Your task to perform on an android device: find which apps use the phone's location Image 0: 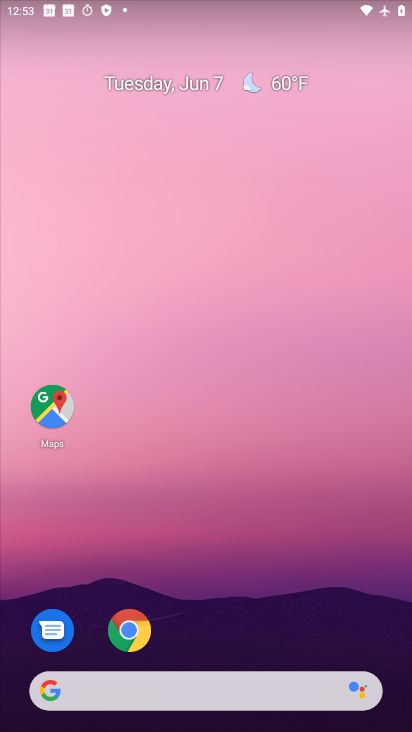
Step 0: drag from (350, 622) to (275, 79)
Your task to perform on an android device: find which apps use the phone's location Image 1: 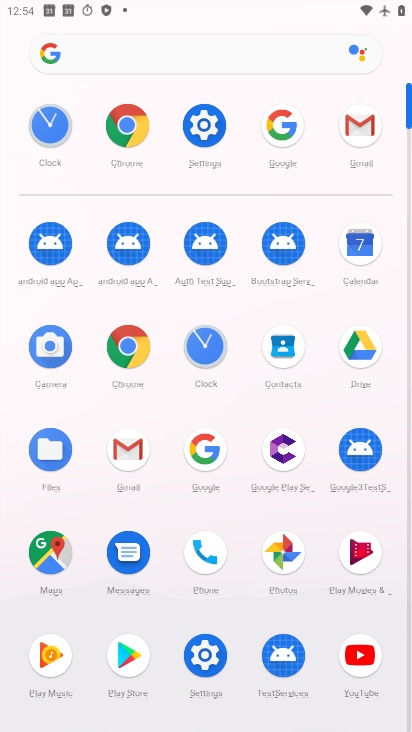
Step 1: click (200, 656)
Your task to perform on an android device: find which apps use the phone's location Image 2: 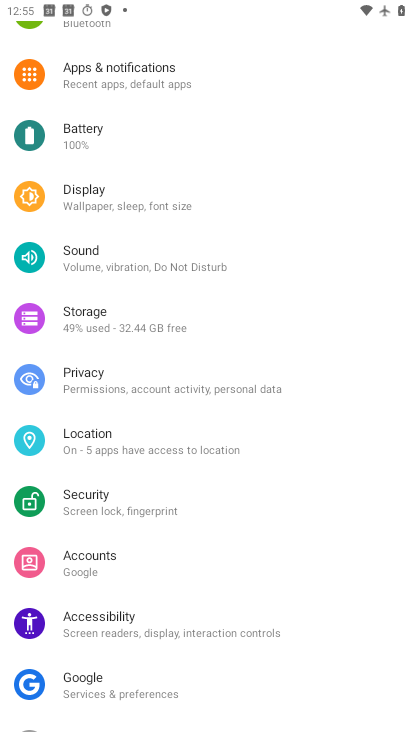
Step 2: click (148, 435)
Your task to perform on an android device: find which apps use the phone's location Image 3: 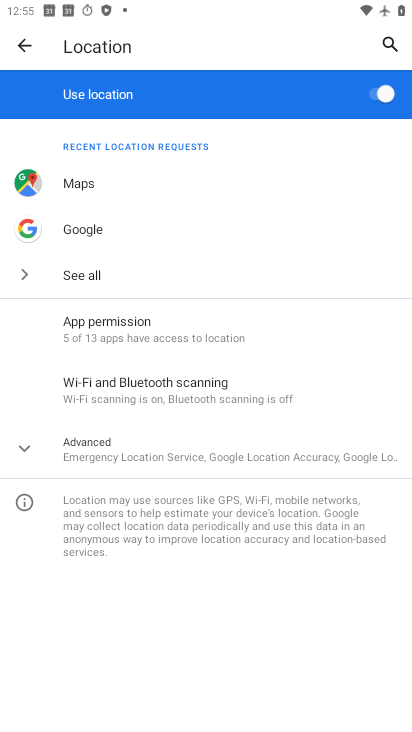
Step 3: click (167, 312)
Your task to perform on an android device: find which apps use the phone's location Image 4: 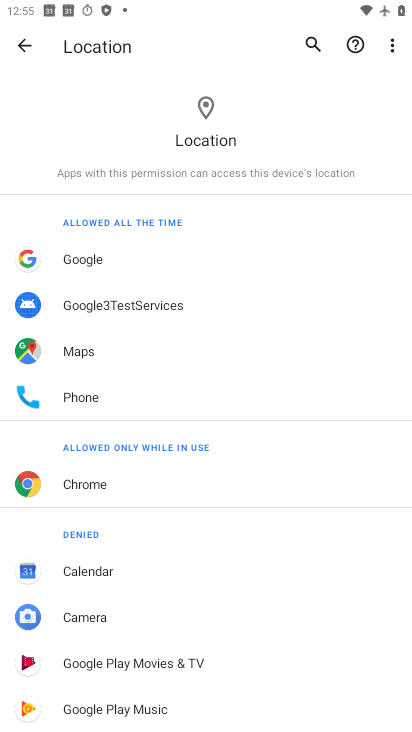
Step 4: click (99, 396)
Your task to perform on an android device: find which apps use the phone's location Image 5: 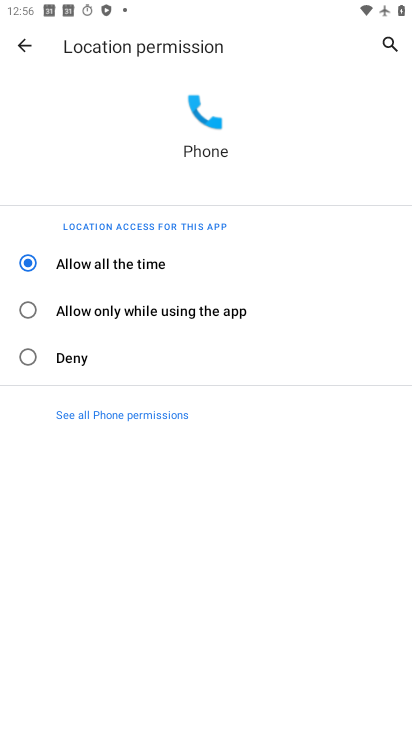
Step 5: task complete